Your task to perform on an android device: uninstall "Life360: Find Family & Friends" Image 0: 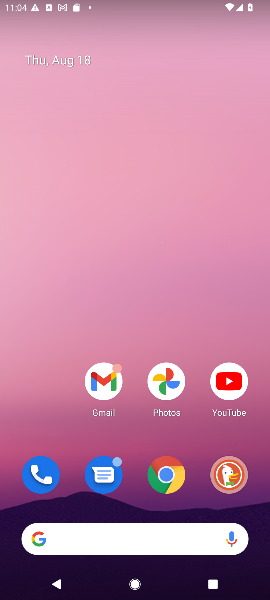
Step 0: drag from (137, 508) to (60, 48)
Your task to perform on an android device: uninstall "Life360: Find Family & Friends" Image 1: 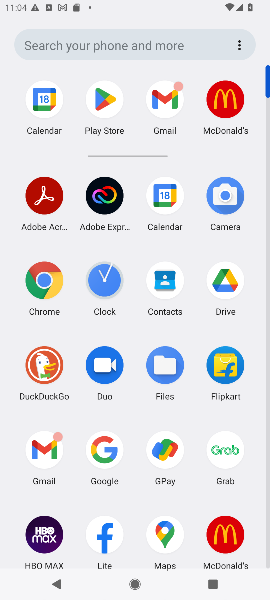
Step 1: click (110, 112)
Your task to perform on an android device: uninstall "Life360: Find Family & Friends" Image 2: 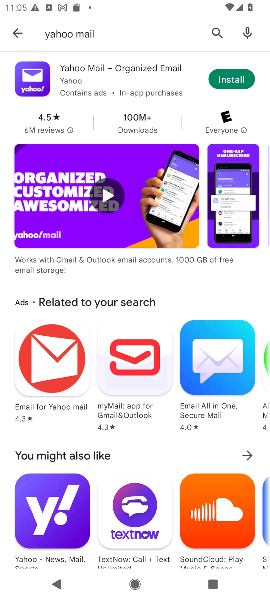
Step 2: click (11, 29)
Your task to perform on an android device: uninstall "Life360: Find Family & Friends" Image 3: 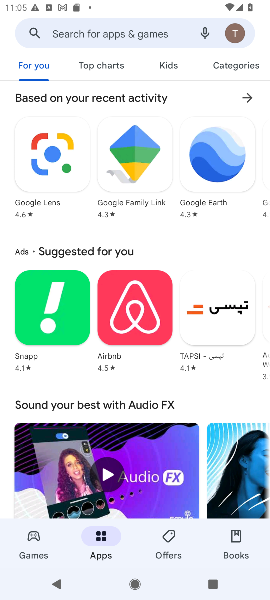
Step 3: click (61, 42)
Your task to perform on an android device: uninstall "Life360: Find Family & Friends" Image 4: 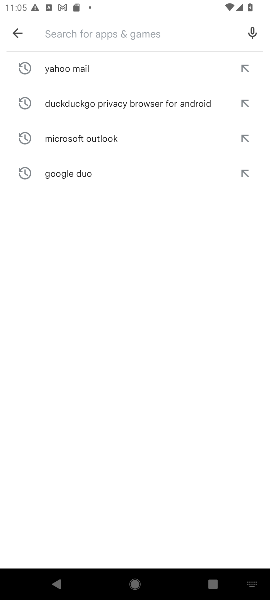
Step 4: click (223, 560)
Your task to perform on an android device: uninstall "Life360: Find Family & Friends" Image 5: 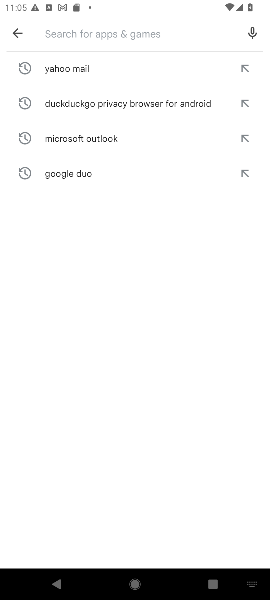
Step 5: type "Life360"
Your task to perform on an android device: uninstall "Life360: Find Family & Friends" Image 6: 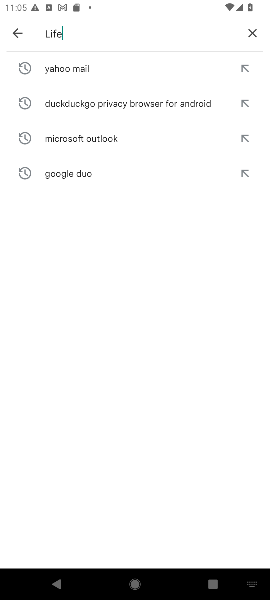
Step 6: type ""
Your task to perform on an android device: uninstall "Life360: Find Family & Friends" Image 7: 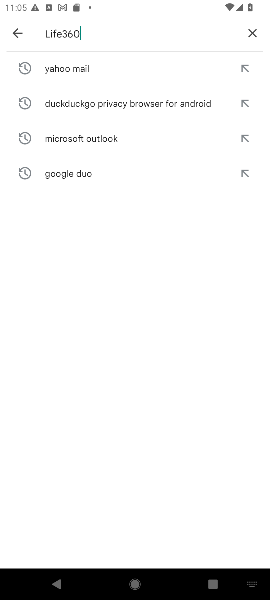
Step 7: drag from (223, 560) to (255, 297)
Your task to perform on an android device: uninstall "Life360: Find Family & Friends" Image 8: 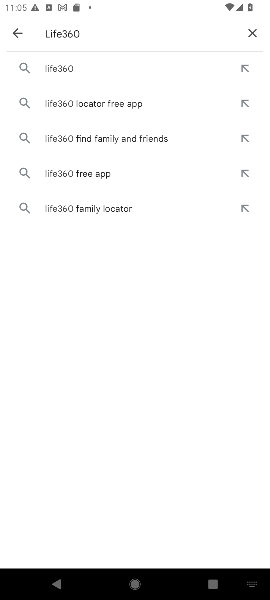
Step 8: click (85, 62)
Your task to perform on an android device: uninstall "Life360: Find Family & Friends" Image 9: 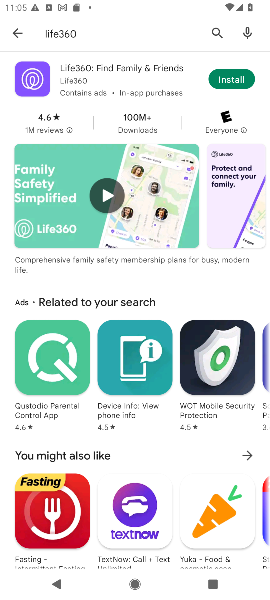
Step 9: task complete